Your task to perform on an android device: Open maps Image 0: 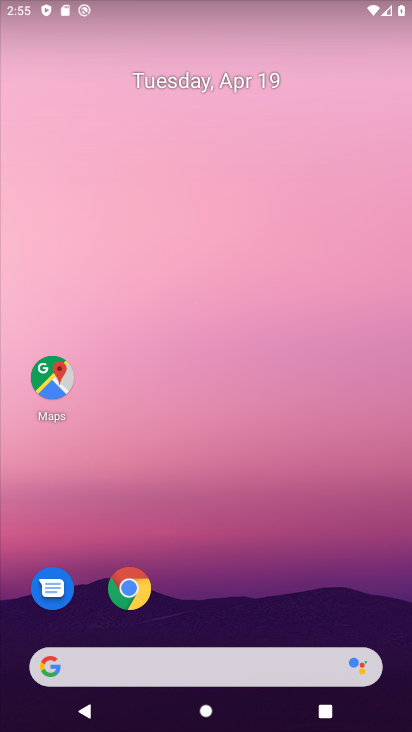
Step 0: drag from (237, 696) to (255, 128)
Your task to perform on an android device: Open maps Image 1: 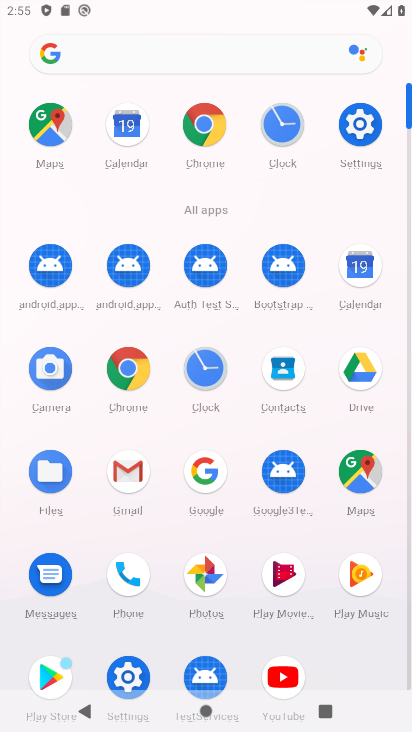
Step 1: click (44, 122)
Your task to perform on an android device: Open maps Image 2: 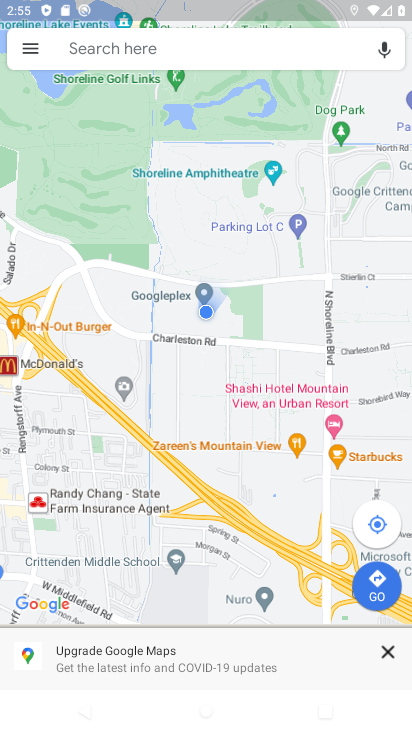
Step 2: click (393, 643)
Your task to perform on an android device: Open maps Image 3: 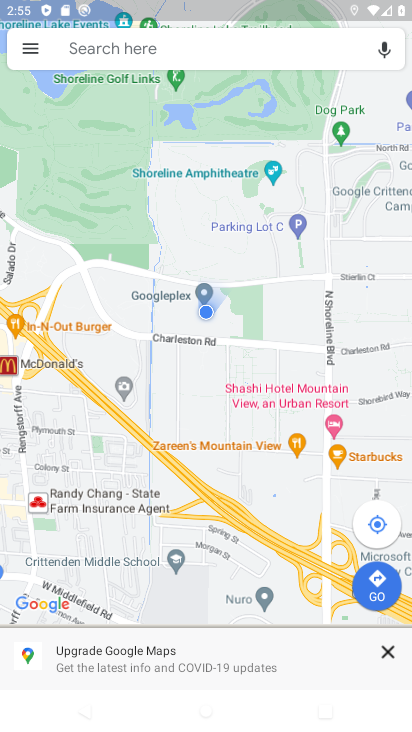
Step 3: click (247, 407)
Your task to perform on an android device: Open maps Image 4: 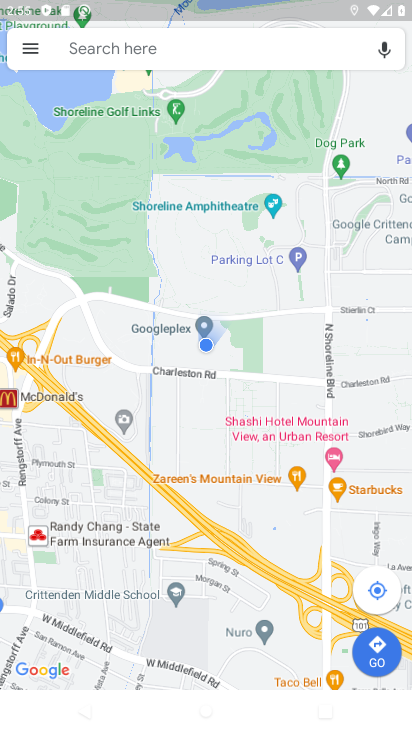
Step 4: click (380, 529)
Your task to perform on an android device: Open maps Image 5: 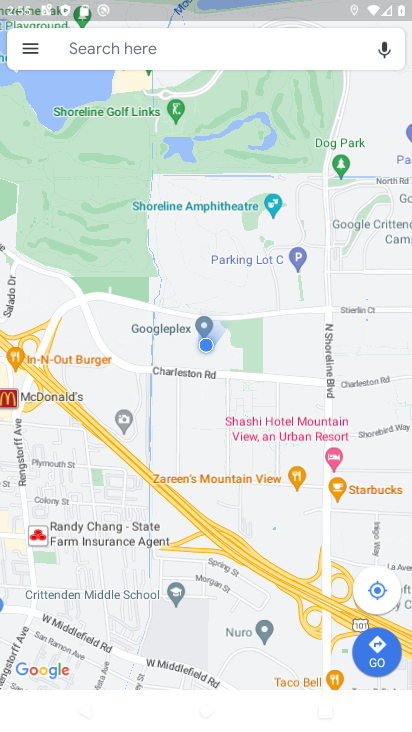
Step 5: click (372, 588)
Your task to perform on an android device: Open maps Image 6: 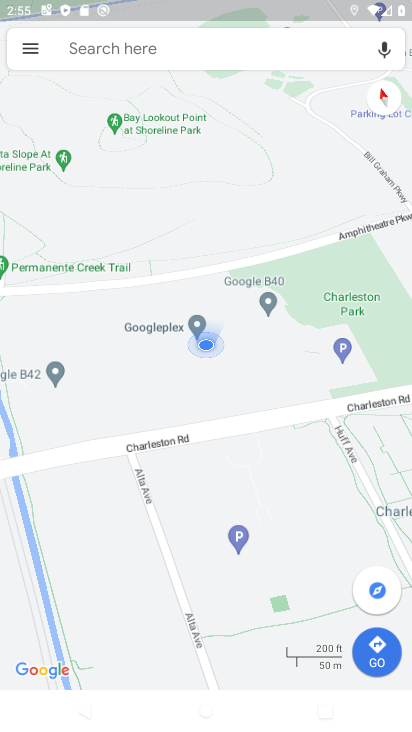
Step 6: task complete